Your task to perform on an android device: Open Google Maps and go to "Timeline" Image 0: 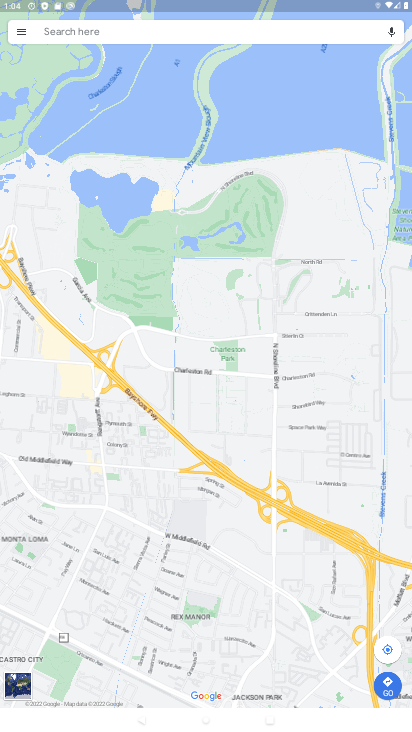
Step 0: click (18, 28)
Your task to perform on an android device: Open Google Maps and go to "Timeline" Image 1: 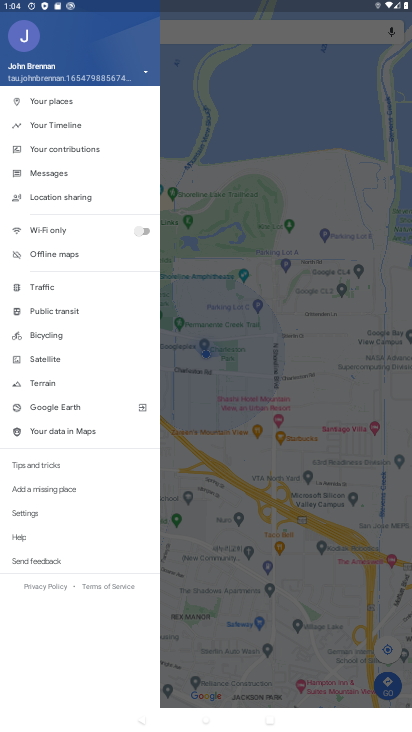
Step 1: click (76, 123)
Your task to perform on an android device: Open Google Maps and go to "Timeline" Image 2: 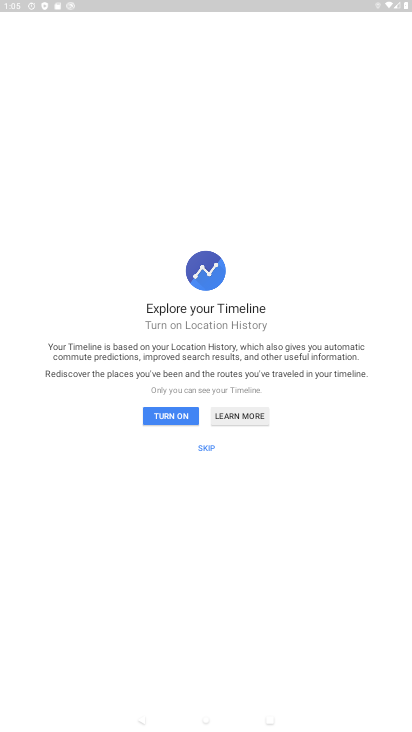
Step 2: click (204, 446)
Your task to perform on an android device: Open Google Maps and go to "Timeline" Image 3: 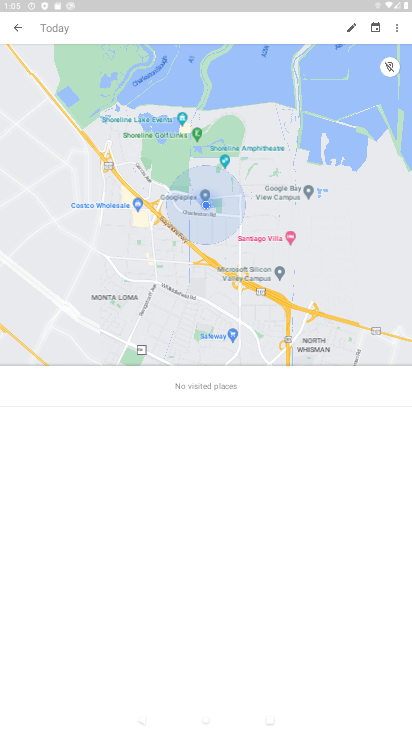
Step 3: task complete